Your task to perform on an android device: What's the weather? Image 0: 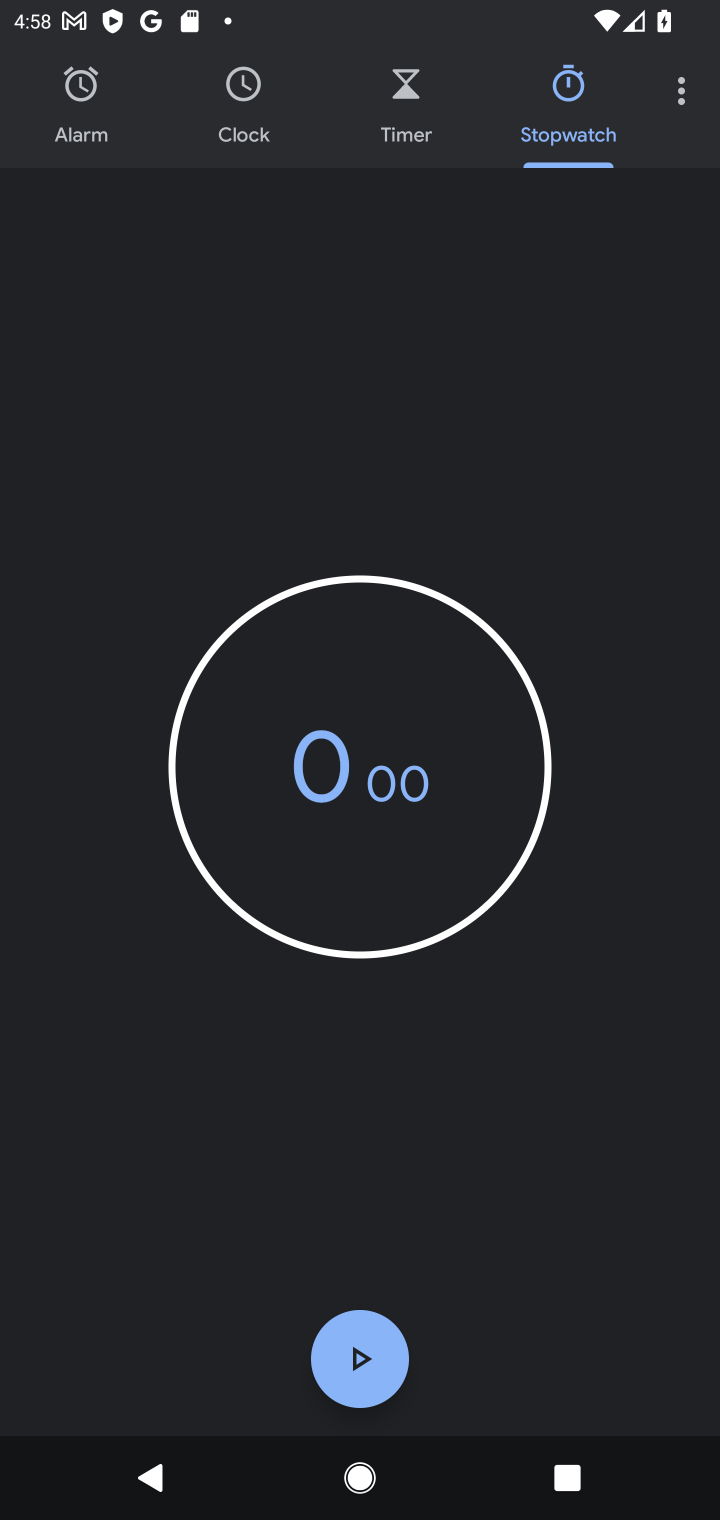
Step 0: press home button
Your task to perform on an android device: What's the weather? Image 1: 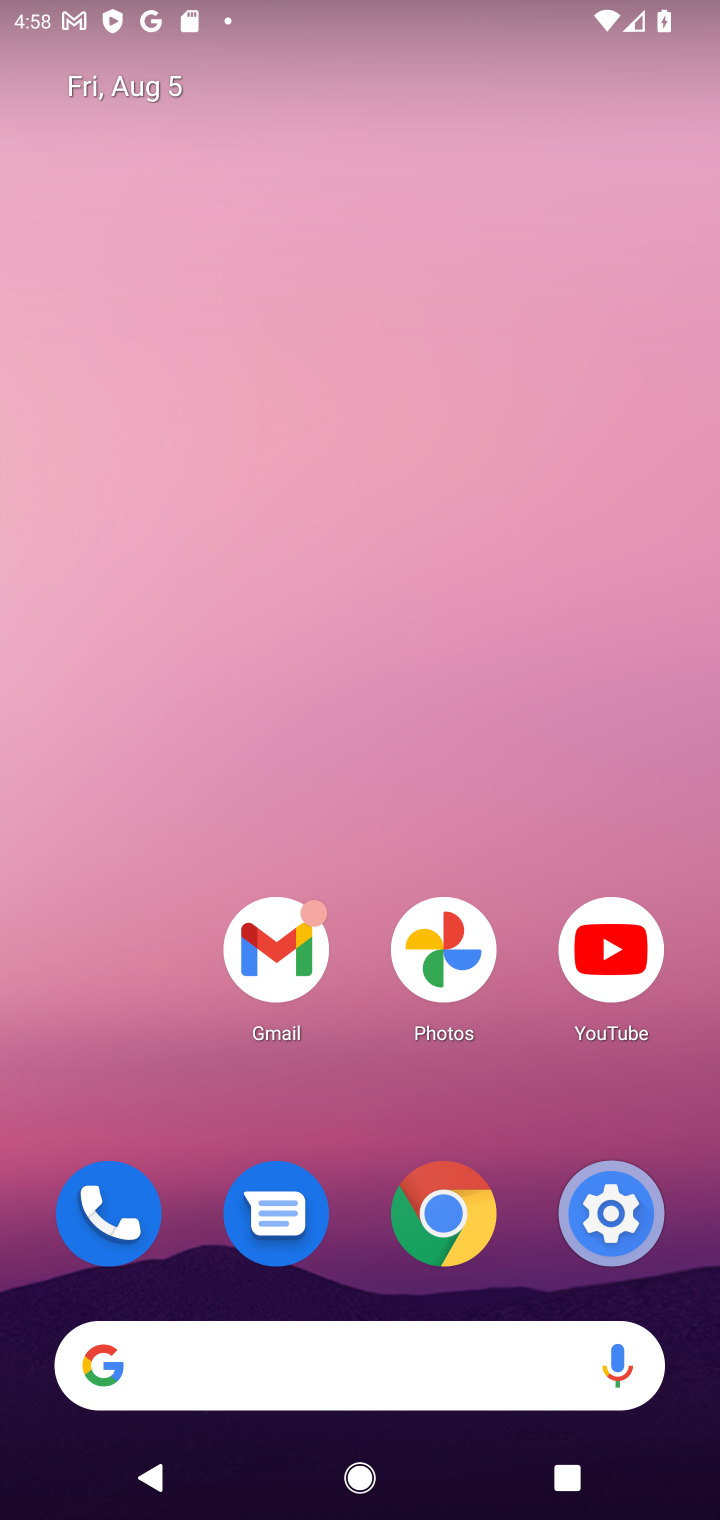
Step 1: click (317, 1390)
Your task to perform on an android device: What's the weather? Image 2: 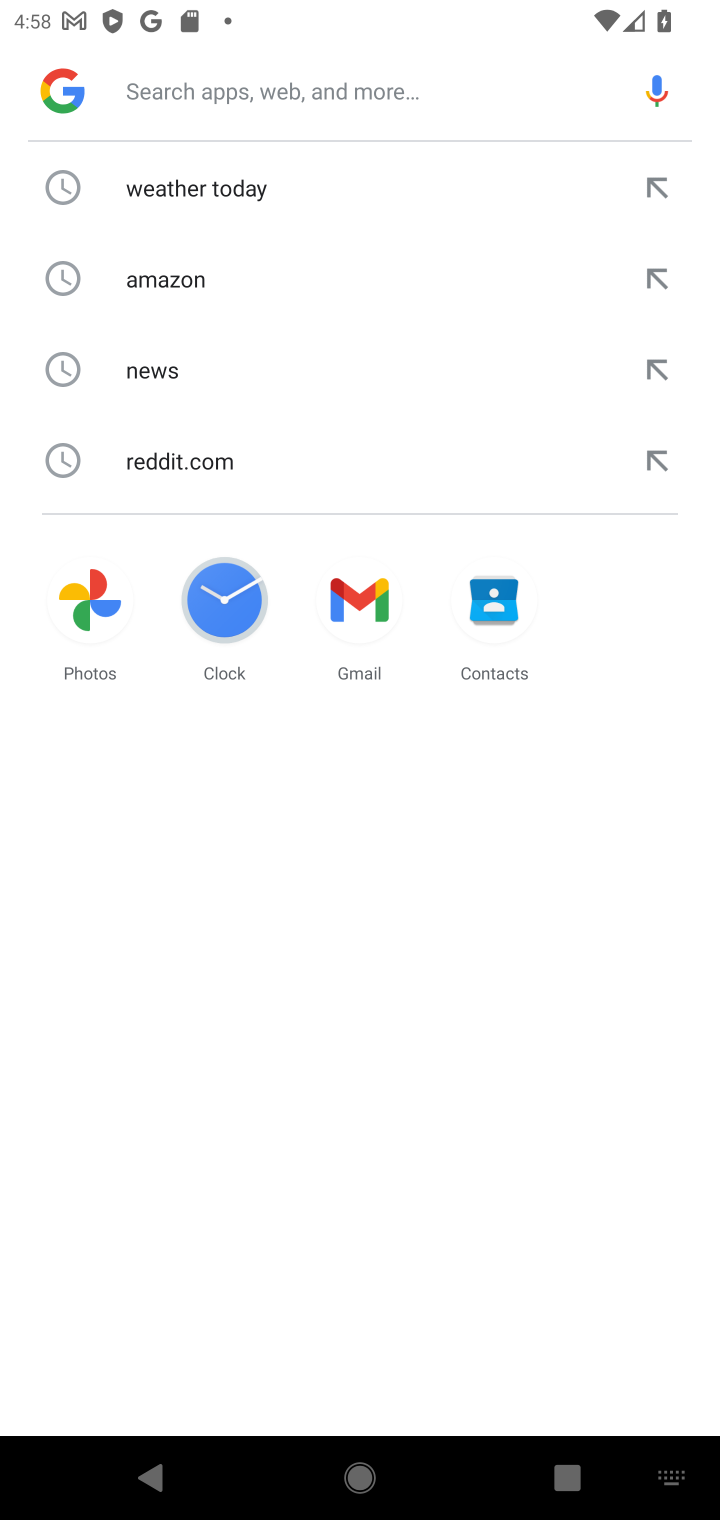
Step 2: click (182, 179)
Your task to perform on an android device: What's the weather? Image 3: 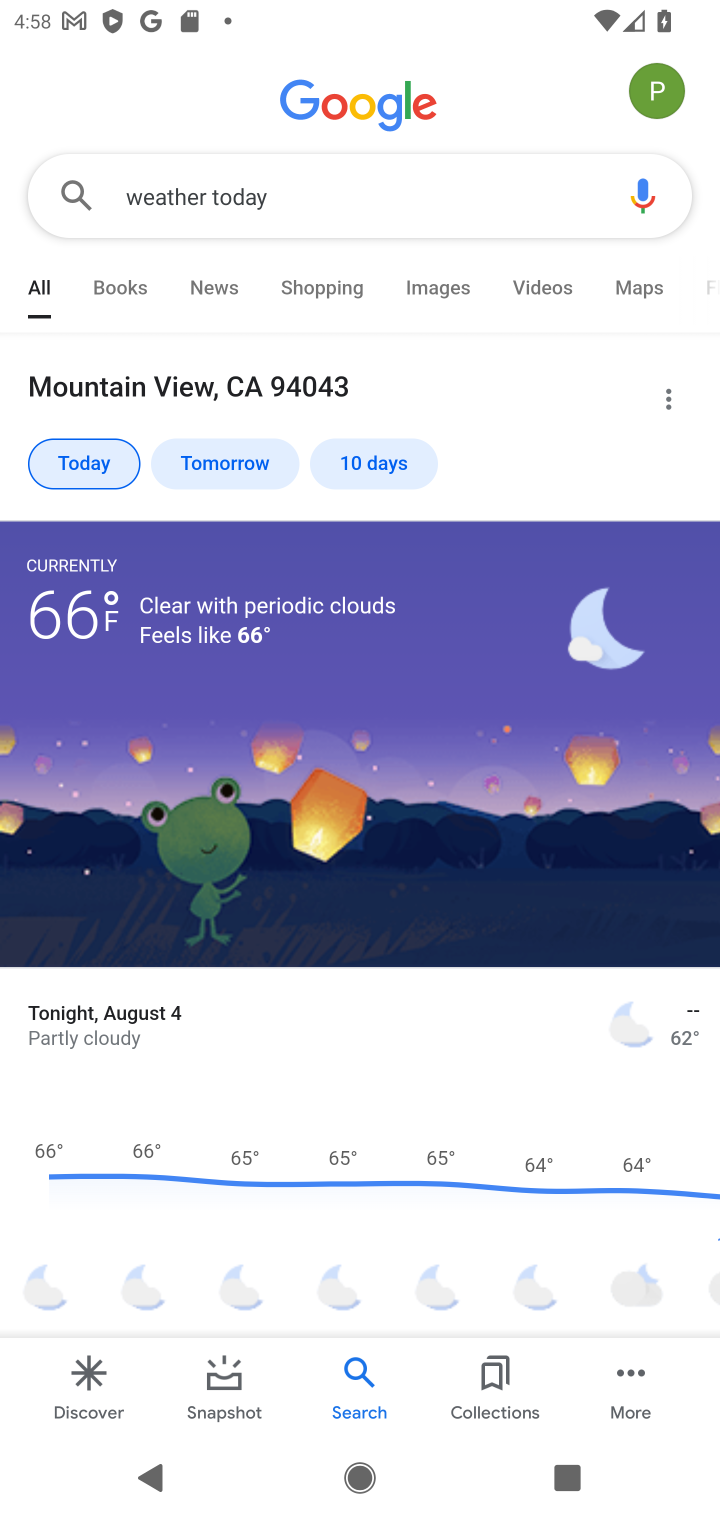
Step 3: task complete